Your task to perform on an android device: see tabs open on other devices in the chrome app Image 0: 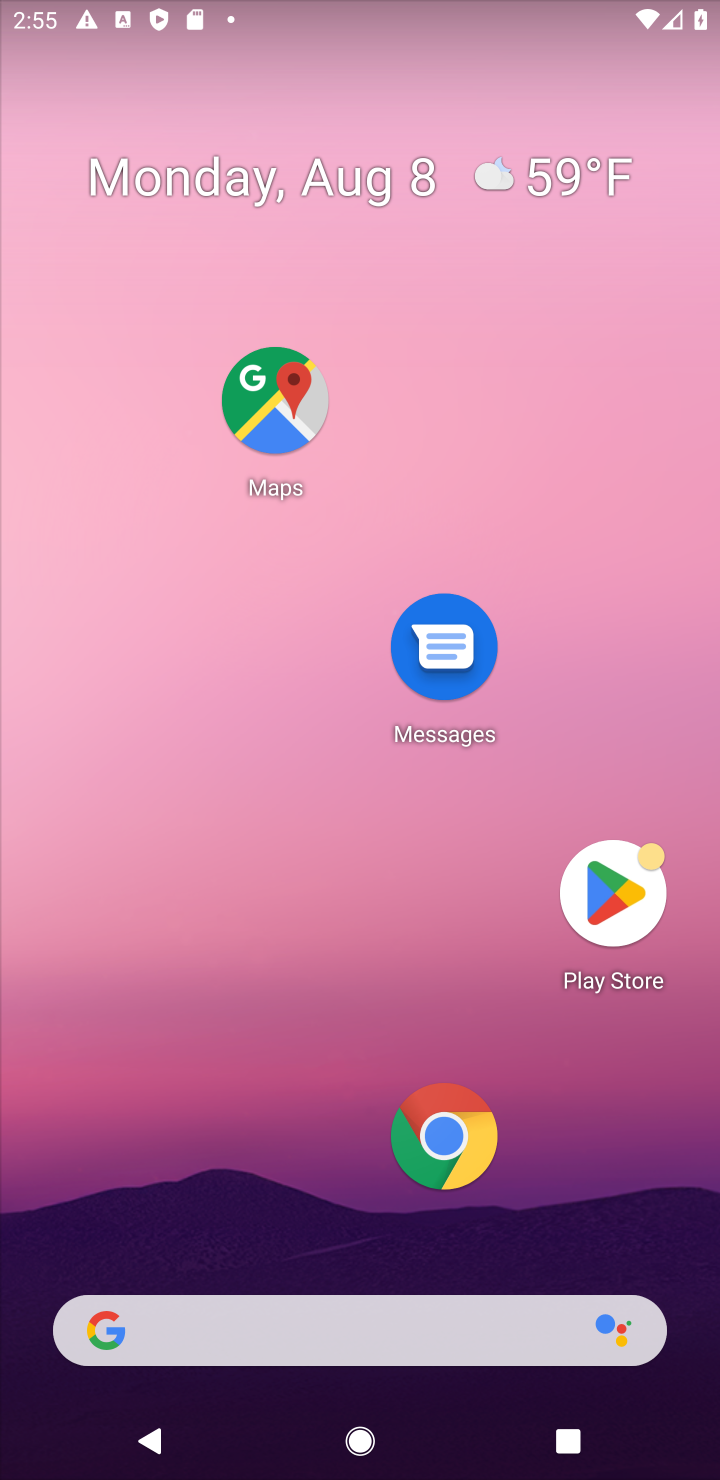
Step 0: click (429, 1134)
Your task to perform on an android device: see tabs open on other devices in the chrome app Image 1: 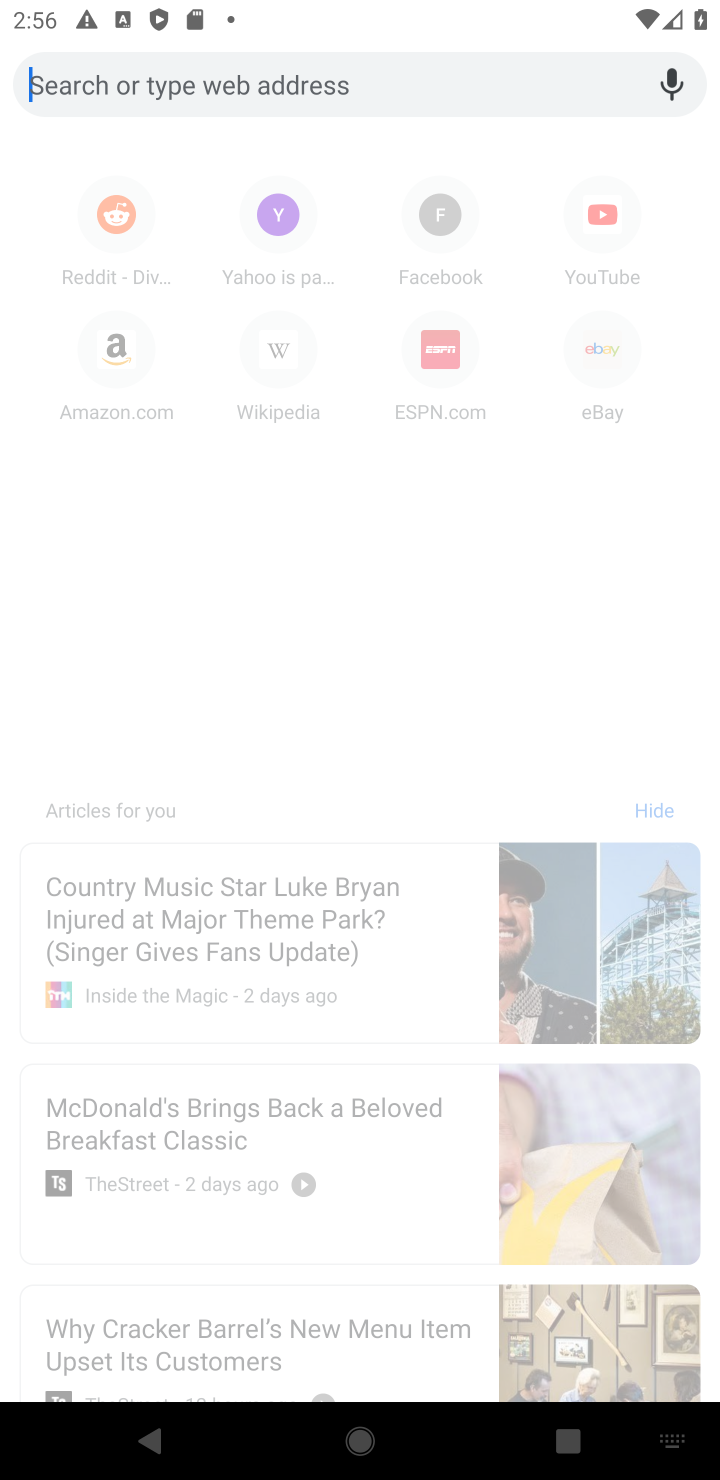
Step 1: task complete